Your task to perform on an android device: What's the news in Bolivia? Image 0: 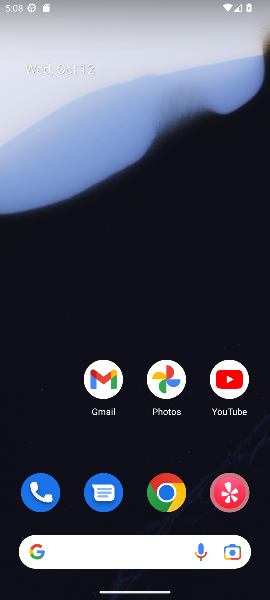
Step 0: click (166, 493)
Your task to perform on an android device: What's the news in Bolivia? Image 1: 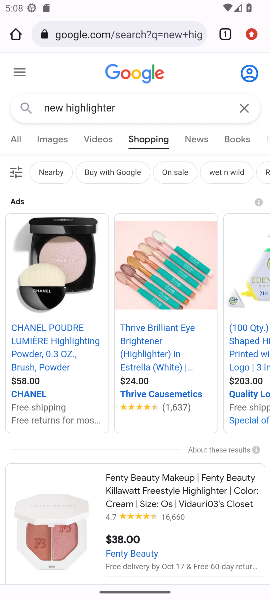
Step 1: click (110, 104)
Your task to perform on an android device: What's the news in Bolivia? Image 2: 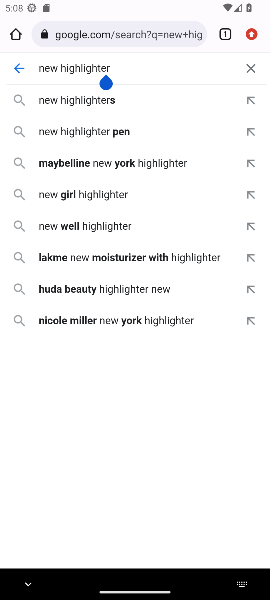
Step 2: click (251, 65)
Your task to perform on an android device: What's the news in Bolivia? Image 3: 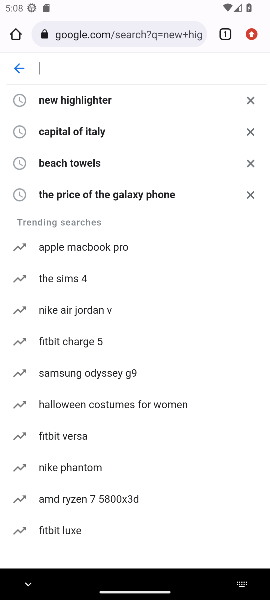
Step 3: type "Bolivia"
Your task to perform on an android device: What's the news in Bolivia? Image 4: 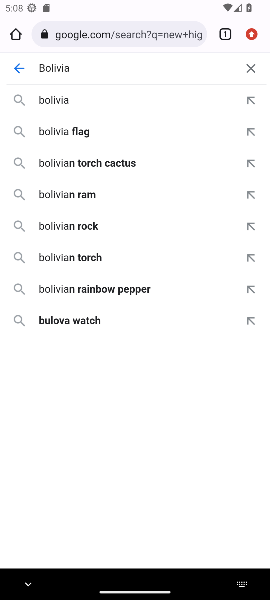
Step 4: click (68, 104)
Your task to perform on an android device: What's the news in Bolivia? Image 5: 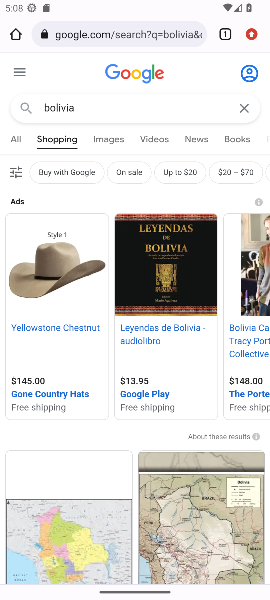
Step 5: click (193, 140)
Your task to perform on an android device: What's the news in Bolivia? Image 6: 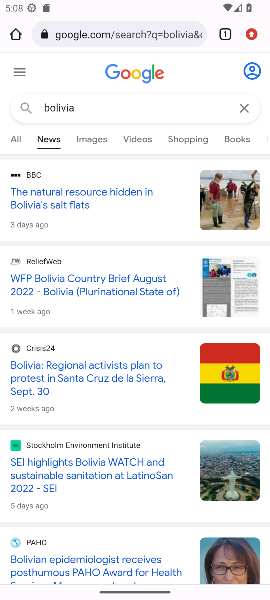
Step 6: click (40, 205)
Your task to perform on an android device: What's the news in Bolivia? Image 7: 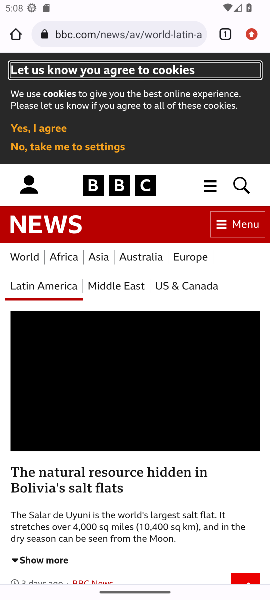
Step 7: task complete